Your task to perform on an android device: Go to privacy settings Image 0: 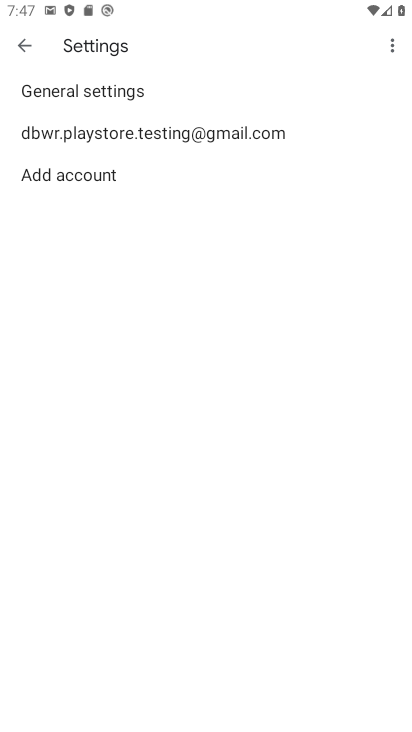
Step 0: press home button
Your task to perform on an android device: Go to privacy settings Image 1: 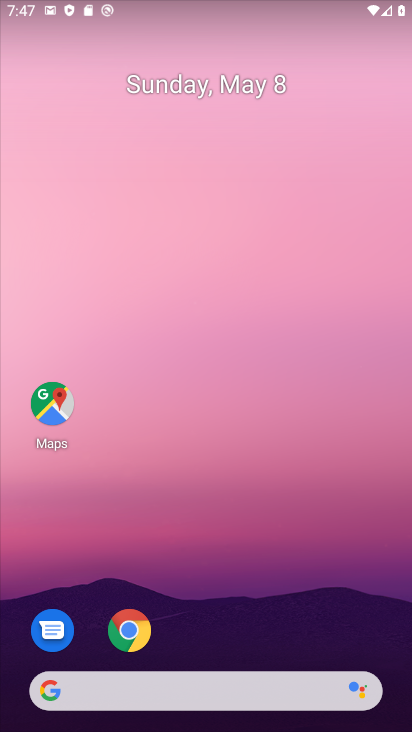
Step 1: drag from (211, 661) to (104, 0)
Your task to perform on an android device: Go to privacy settings Image 2: 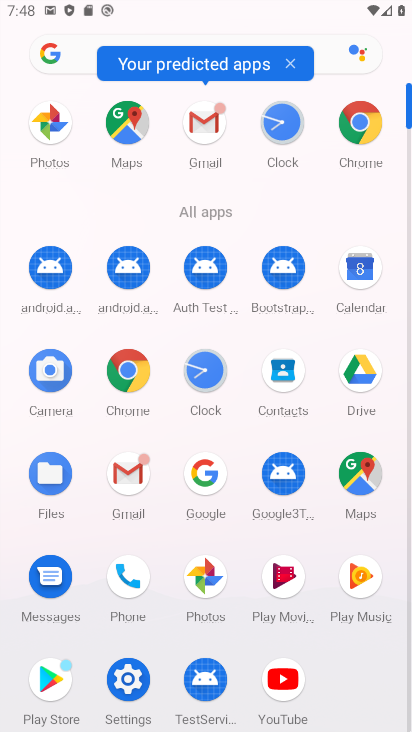
Step 2: click (143, 685)
Your task to perform on an android device: Go to privacy settings Image 3: 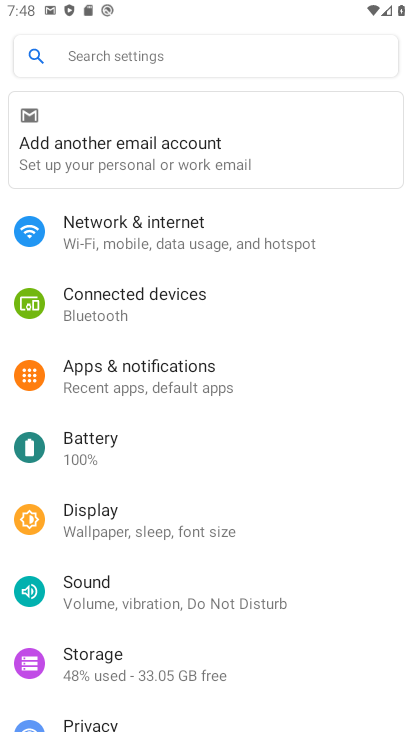
Step 3: drag from (200, 618) to (209, 109)
Your task to perform on an android device: Go to privacy settings Image 4: 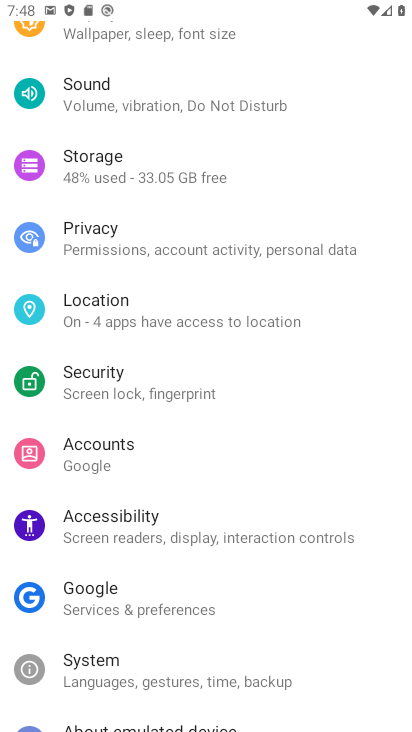
Step 4: click (117, 244)
Your task to perform on an android device: Go to privacy settings Image 5: 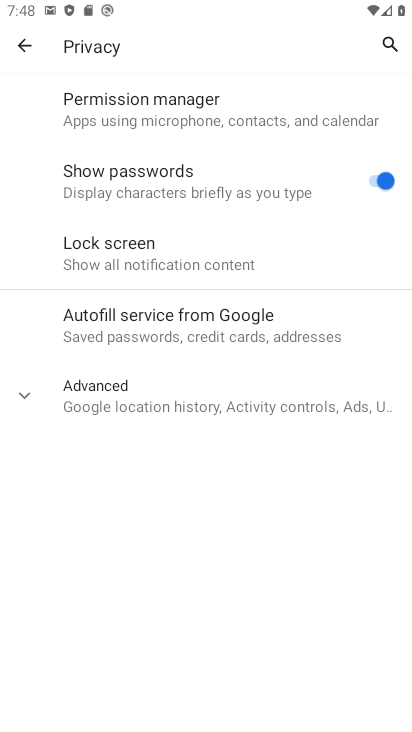
Step 5: click (115, 400)
Your task to perform on an android device: Go to privacy settings Image 6: 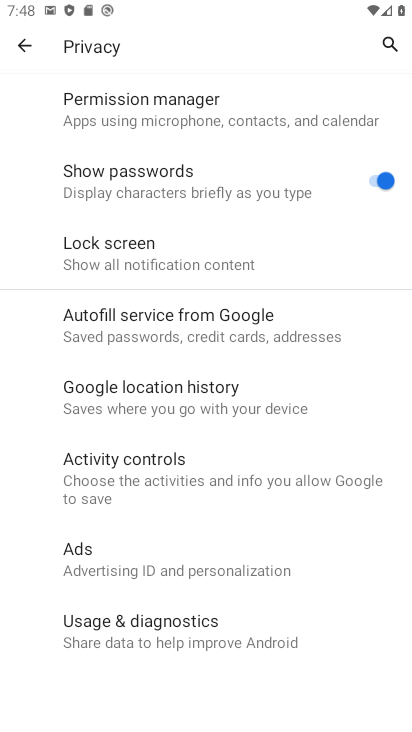
Step 6: task complete